Your task to perform on an android device: Open calendar and show me the first week of next month Image 0: 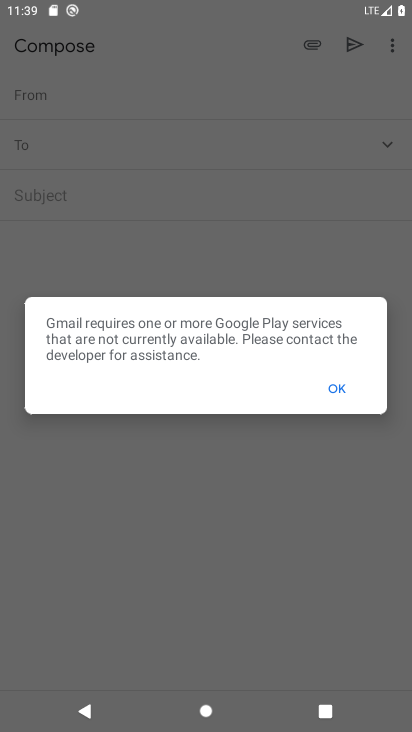
Step 0: press home button
Your task to perform on an android device: Open calendar and show me the first week of next month Image 1: 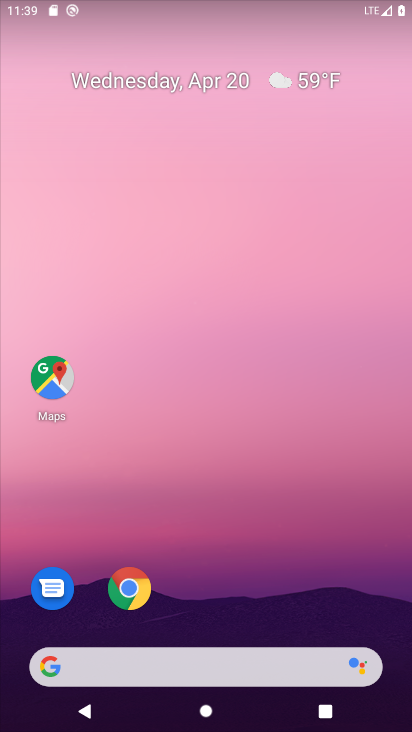
Step 1: drag from (194, 578) to (163, 1)
Your task to perform on an android device: Open calendar and show me the first week of next month Image 2: 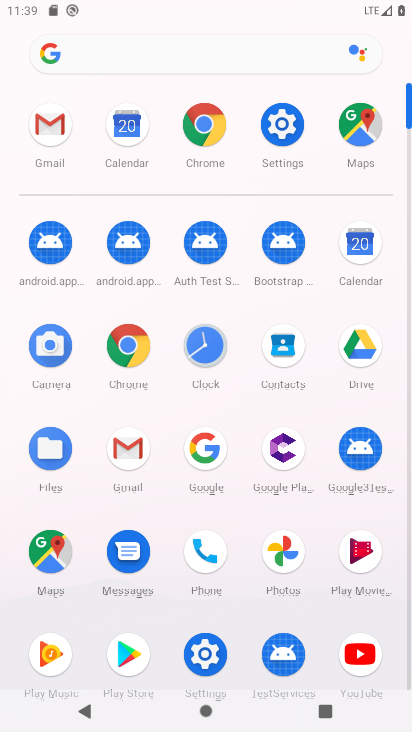
Step 2: click (357, 246)
Your task to perform on an android device: Open calendar and show me the first week of next month Image 3: 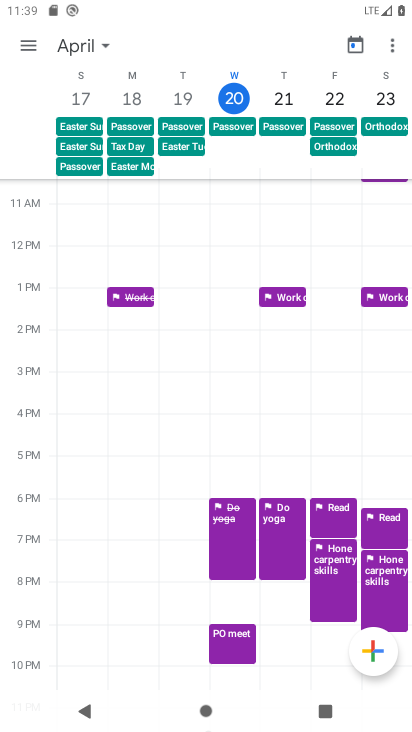
Step 3: click (105, 42)
Your task to perform on an android device: Open calendar and show me the first week of next month Image 4: 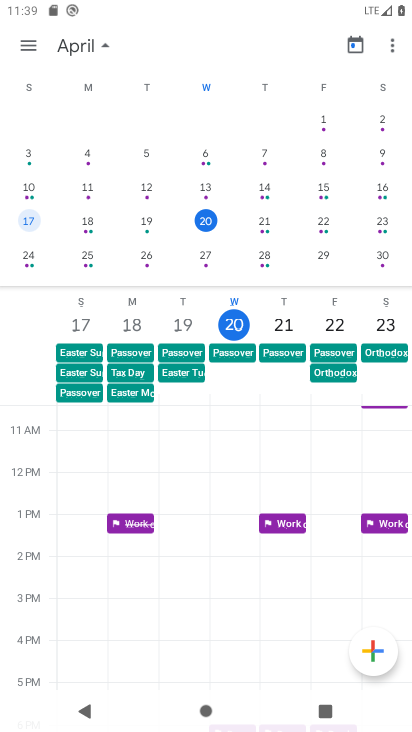
Step 4: task complete